Your task to perform on an android device: Open Google Image 0: 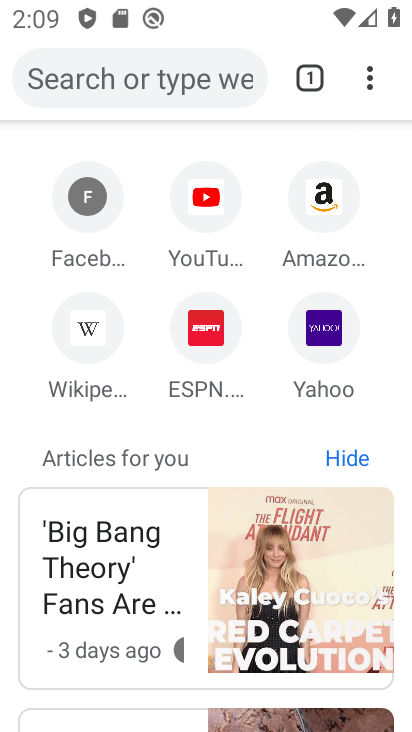
Step 0: press back button
Your task to perform on an android device: Open Google Image 1: 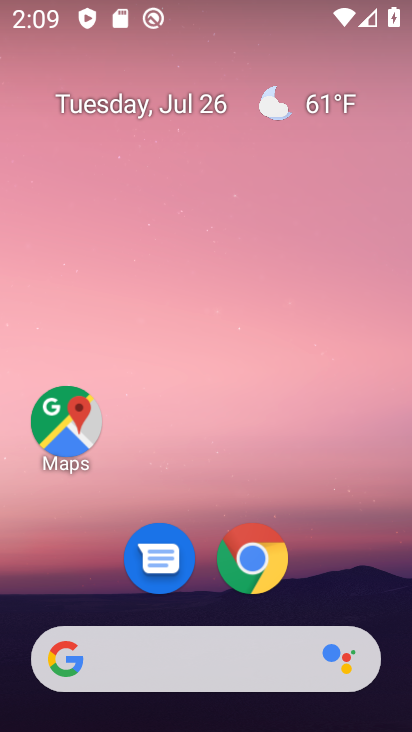
Step 1: drag from (70, 577) to (213, 45)
Your task to perform on an android device: Open Google Image 2: 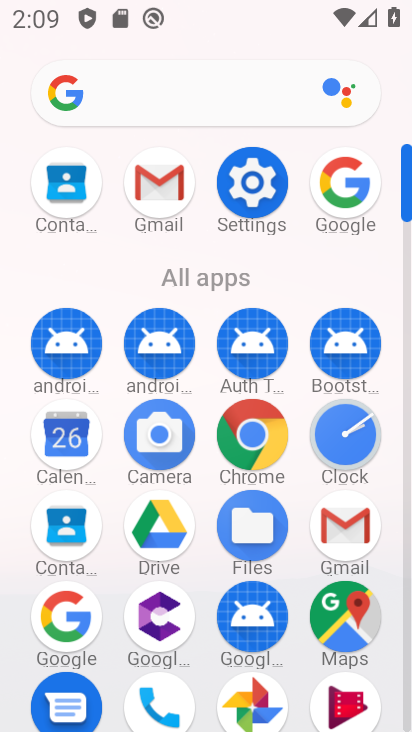
Step 2: click (68, 627)
Your task to perform on an android device: Open Google Image 3: 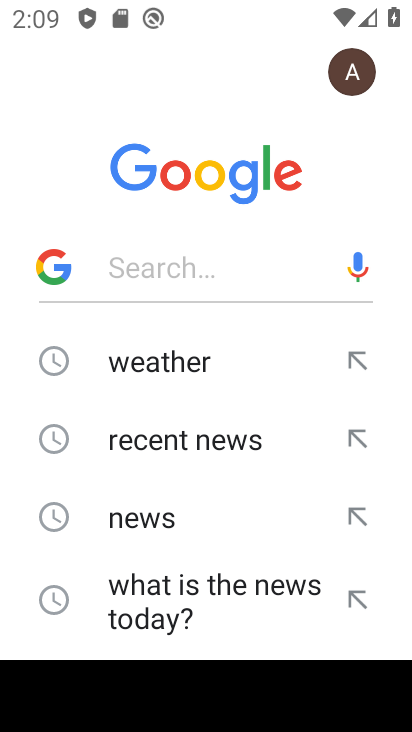
Step 3: task complete